Your task to perform on an android device: uninstall "Microsoft Authenticator" Image 0: 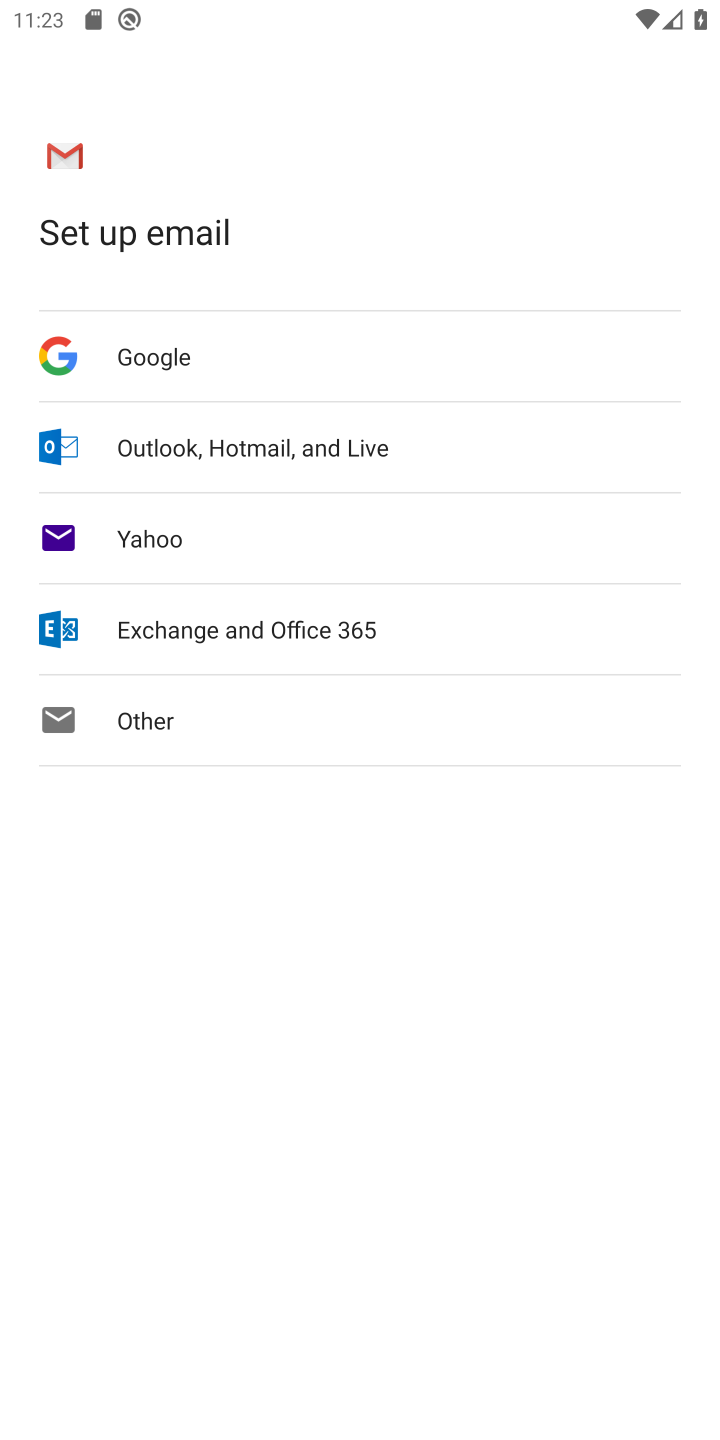
Step 0: press home button
Your task to perform on an android device: uninstall "Microsoft Authenticator" Image 1: 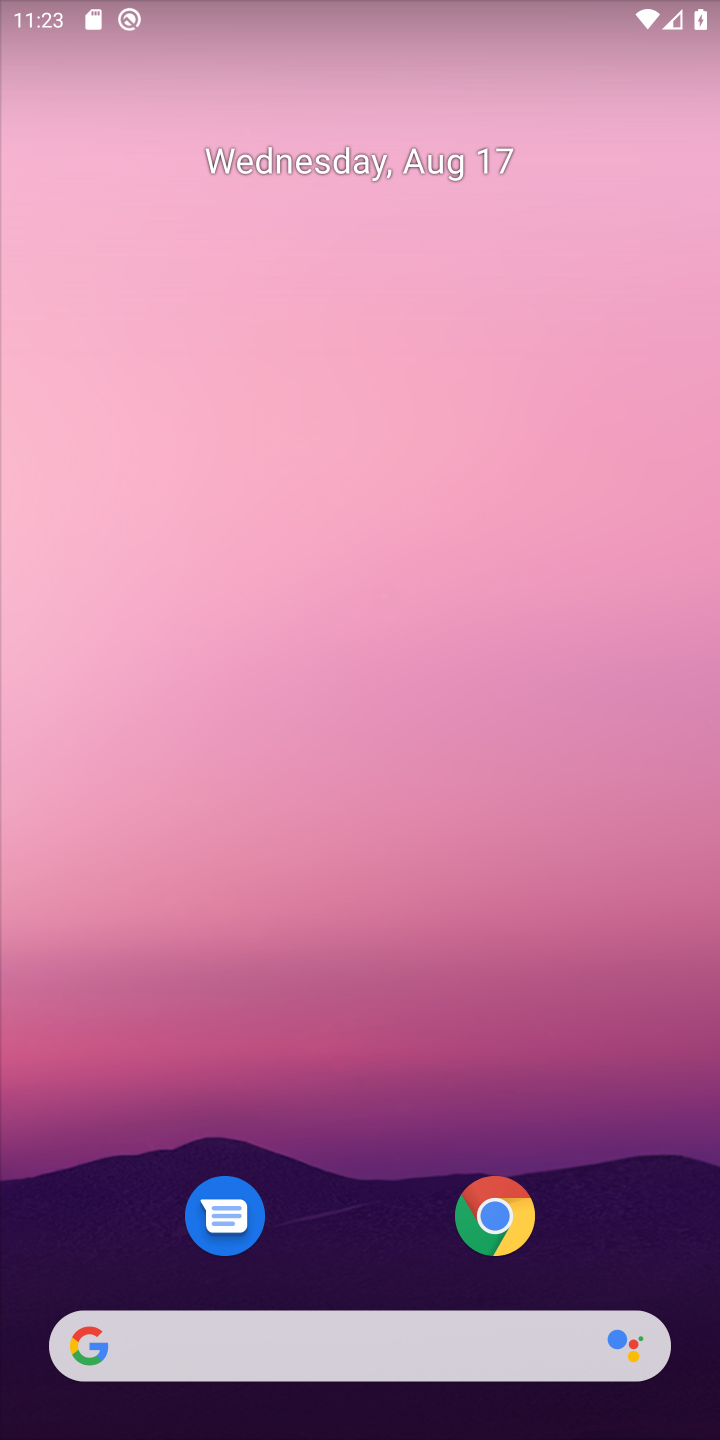
Step 1: drag from (365, 1196) to (268, 306)
Your task to perform on an android device: uninstall "Microsoft Authenticator" Image 2: 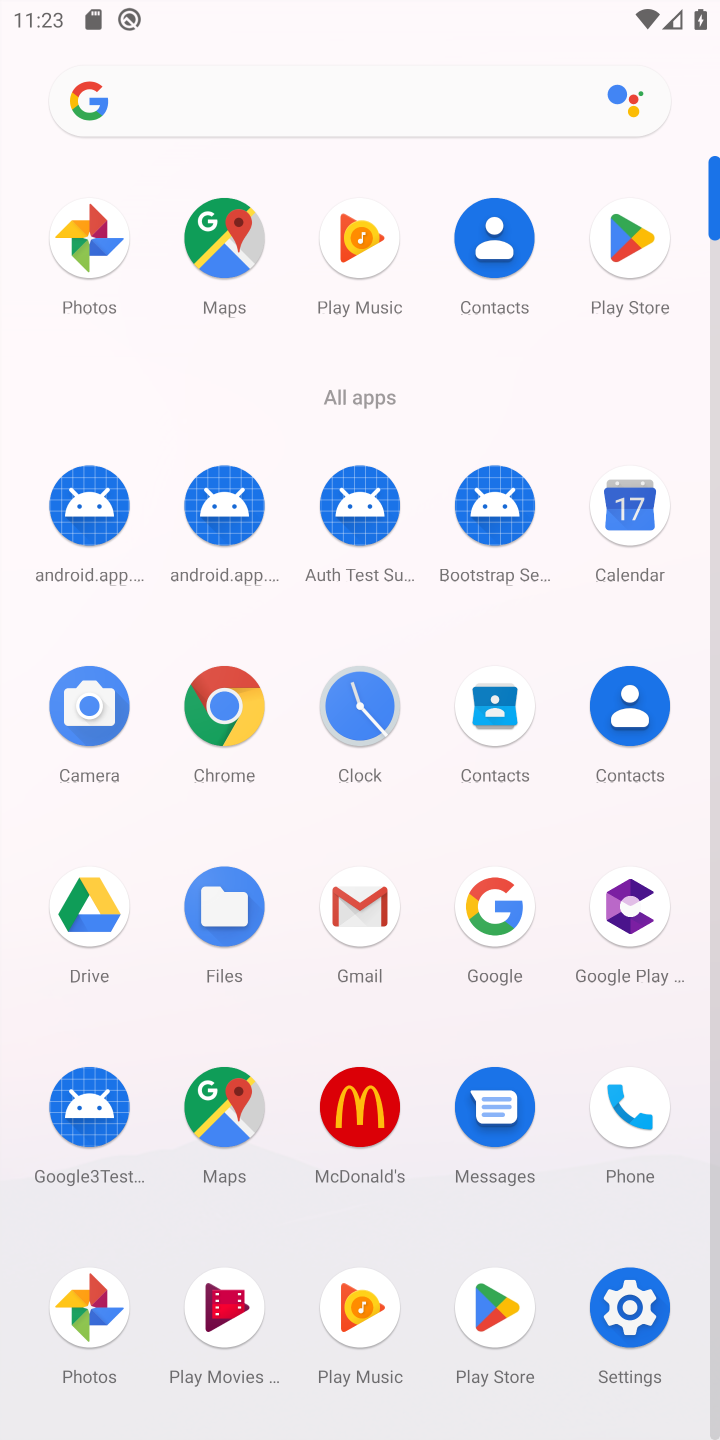
Step 2: click (496, 1293)
Your task to perform on an android device: uninstall "Microsoft Authenticator" Image 3: 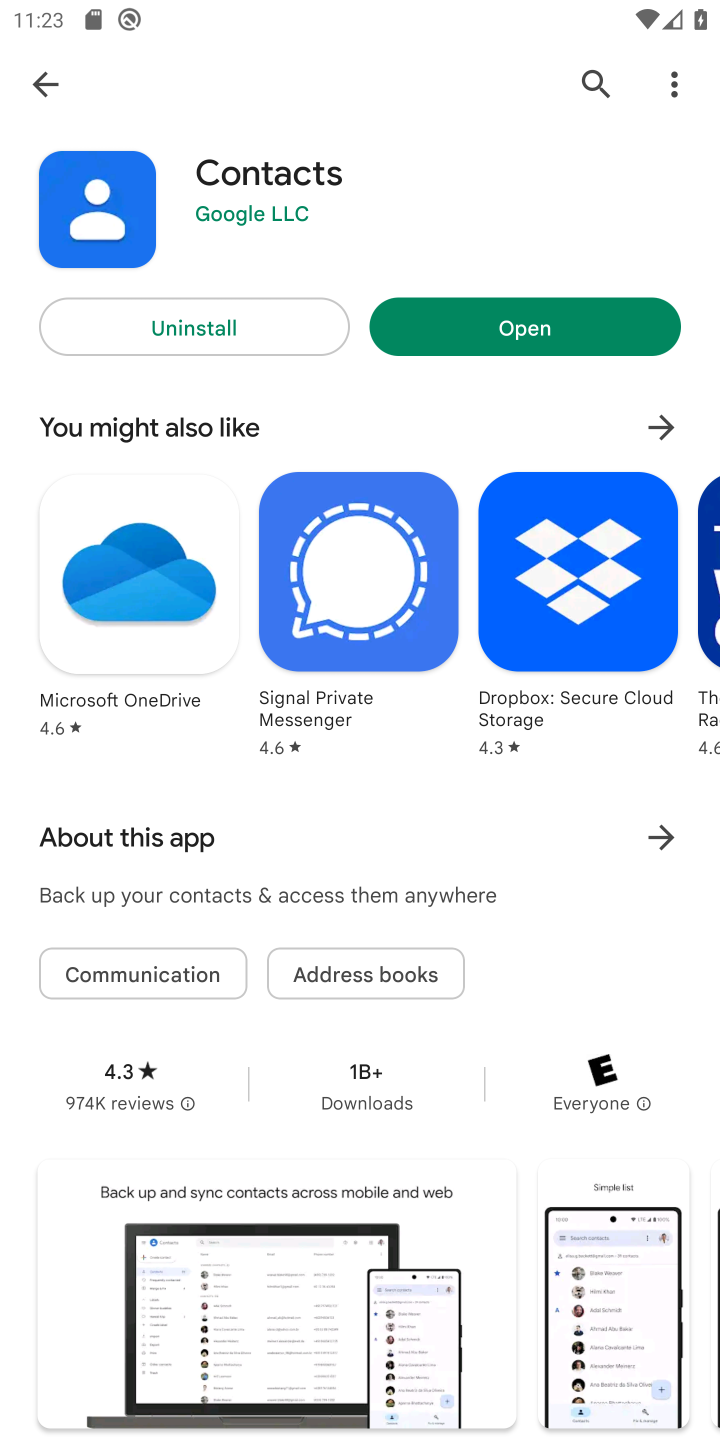
Step 3: click (584, 81)
Your task to perform on an android device: uninstall "Microsoft Authenticator" Image 4: 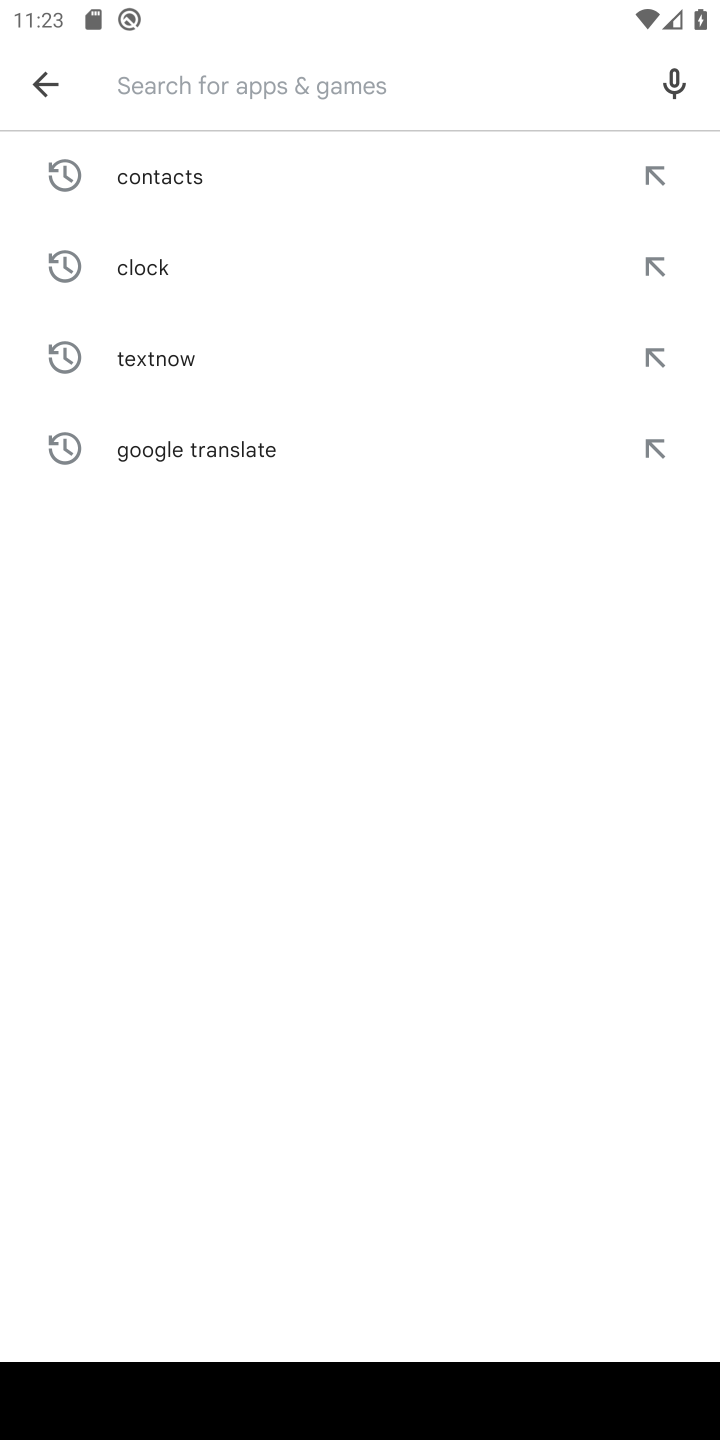
Step 4: type "microsoft authenticator"
Your task to perform on an android device: uninstall "Microsoft Authenticator" Image 5: 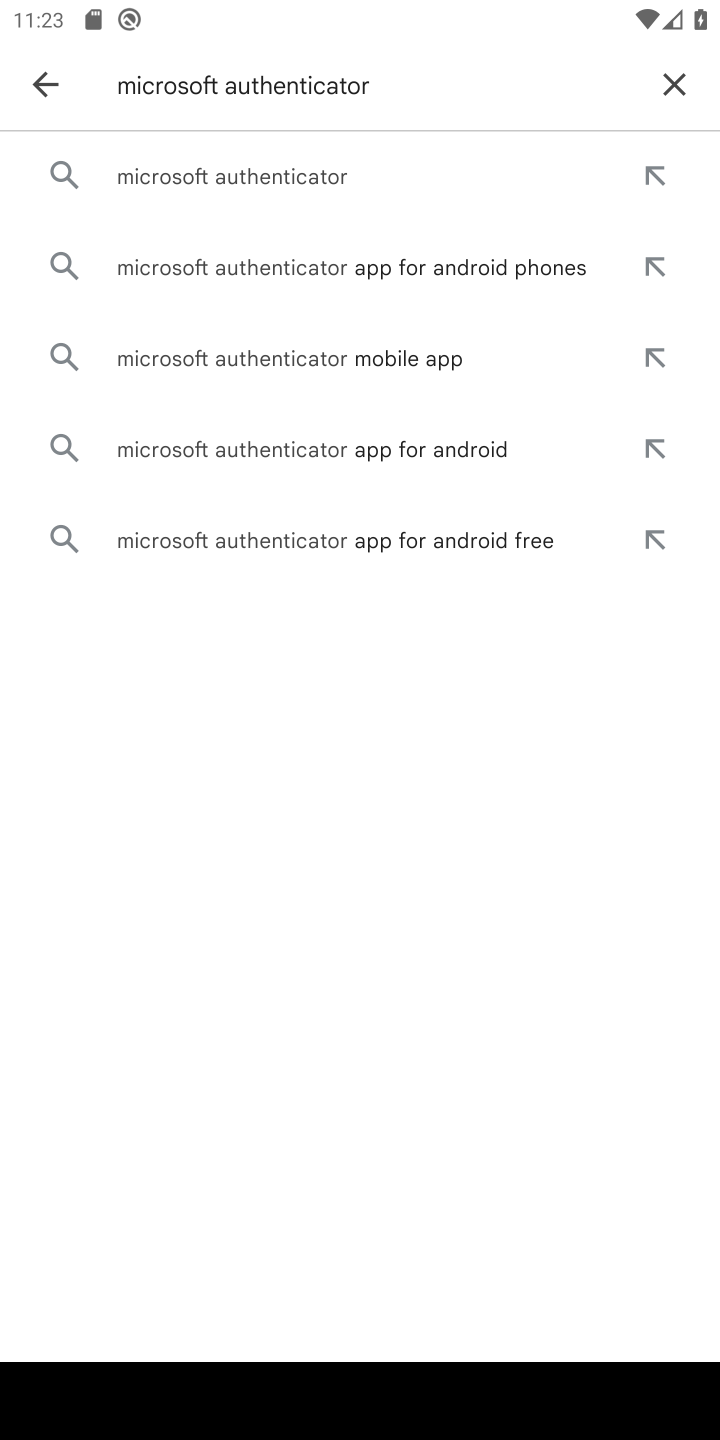
Step 5: click (338, 173)
Your task to perform on an android device: uninstall "Microsoft Authenticator" Image 6: 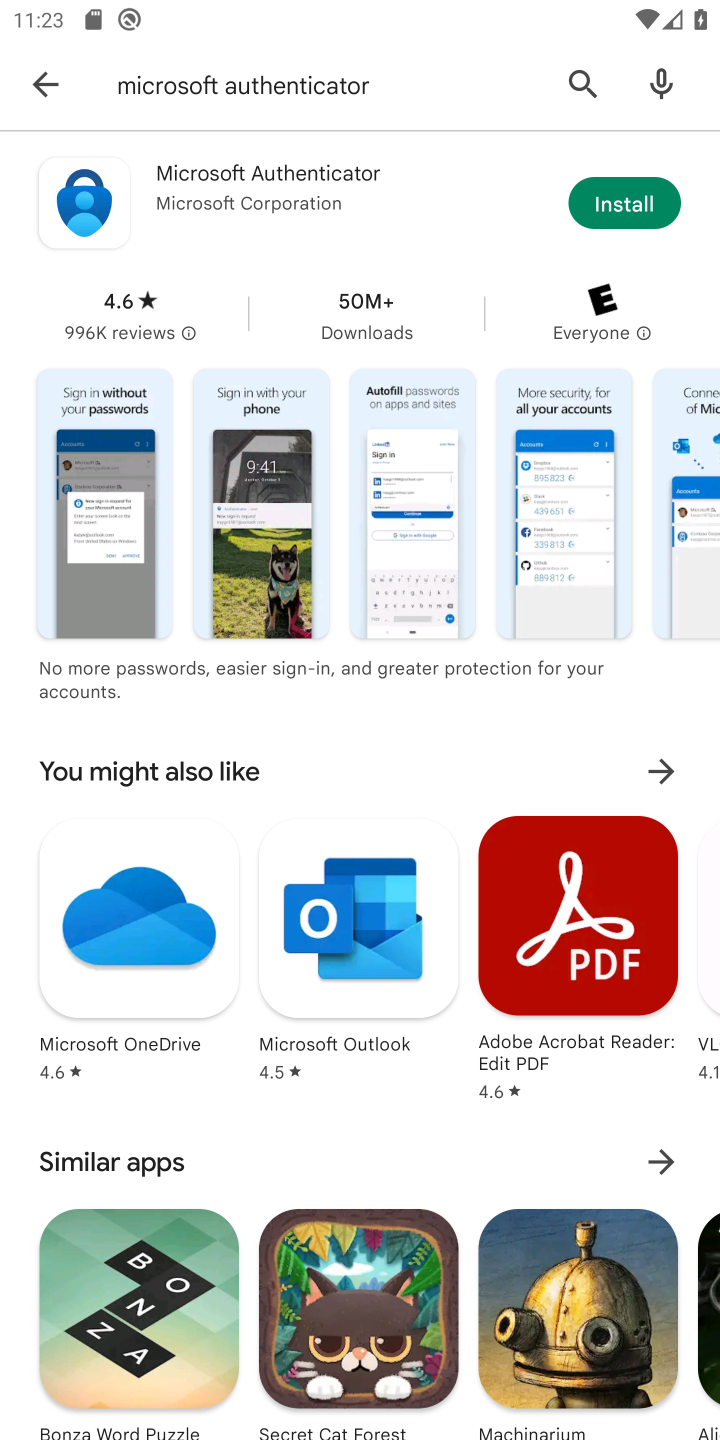
Step 6: task complete